Your task to perform on an android device: uninstall "Cash App" Image 0: 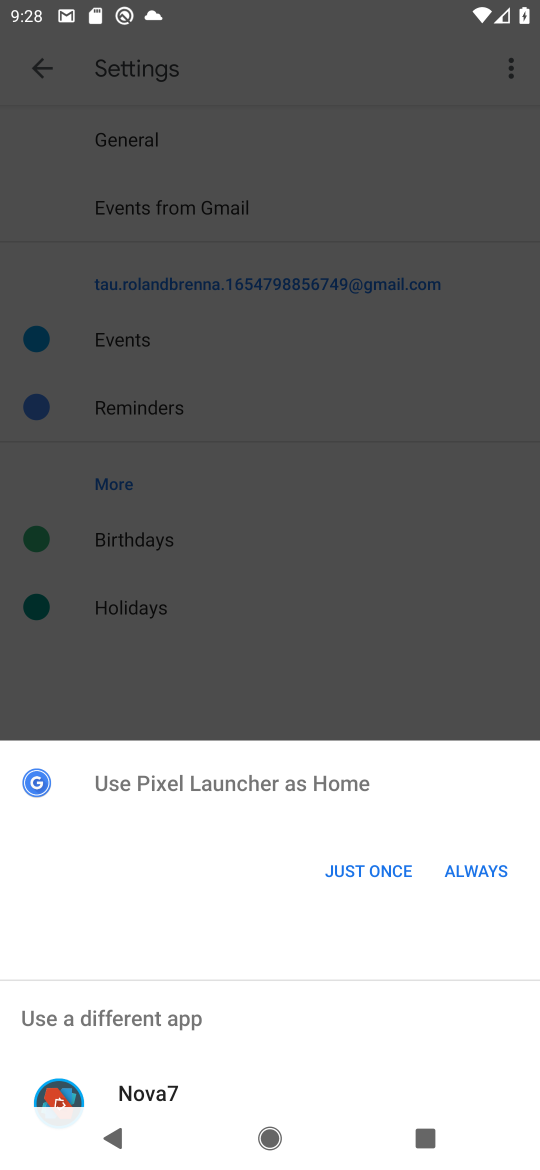
Step 0: press home button
Your task to perform on an android device: uninstall "Cash App" Image 1: 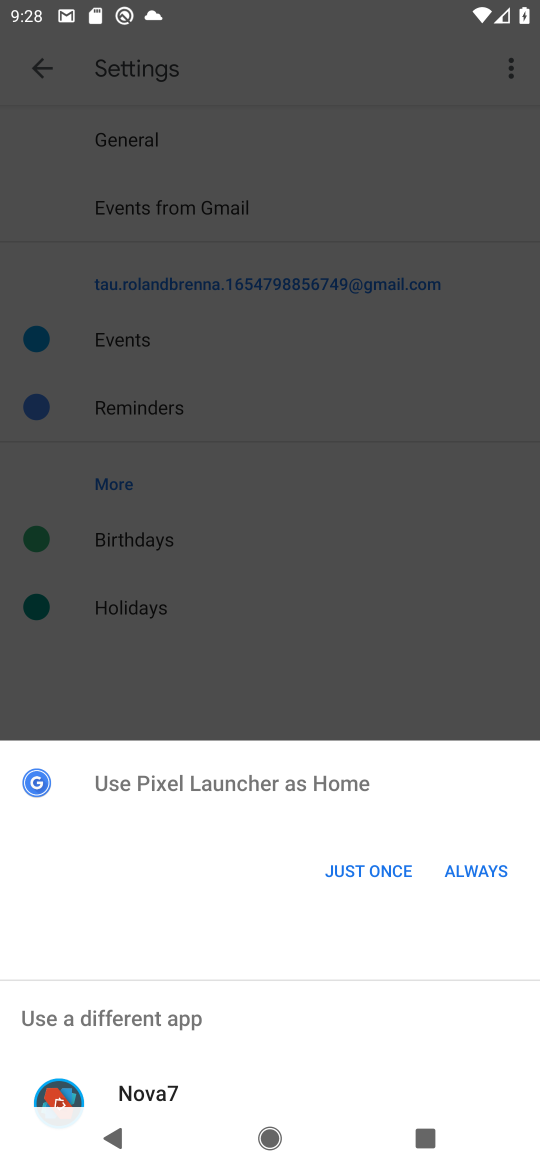
Step 1: press home button
Your task to perform on an android device: uninstall "Cash App" Image 2: 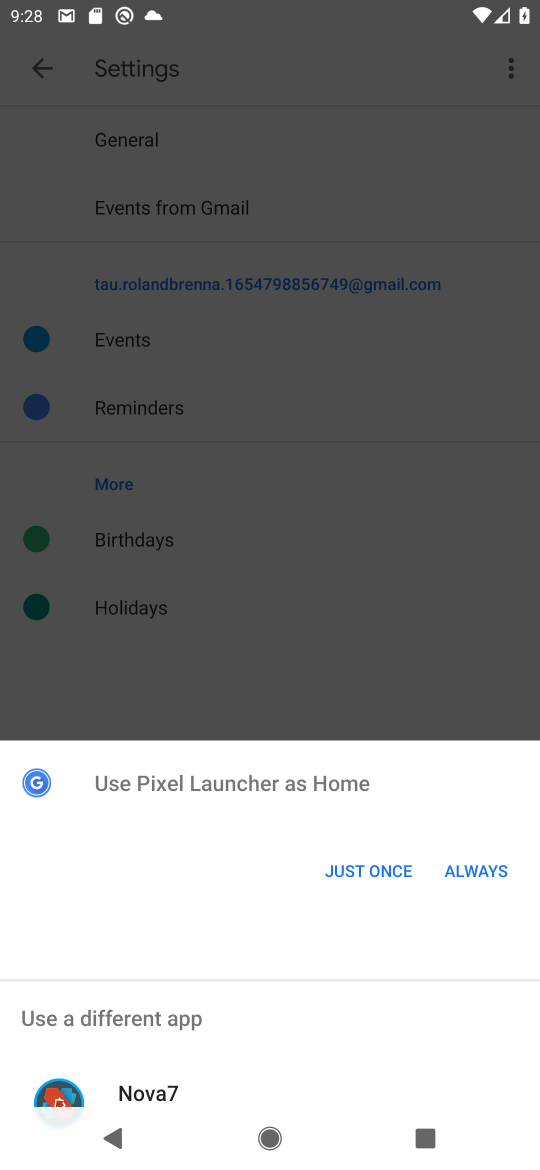
Step 2: press home button
Your task to perform on an android device: uninstall "Cash App" Image 3: 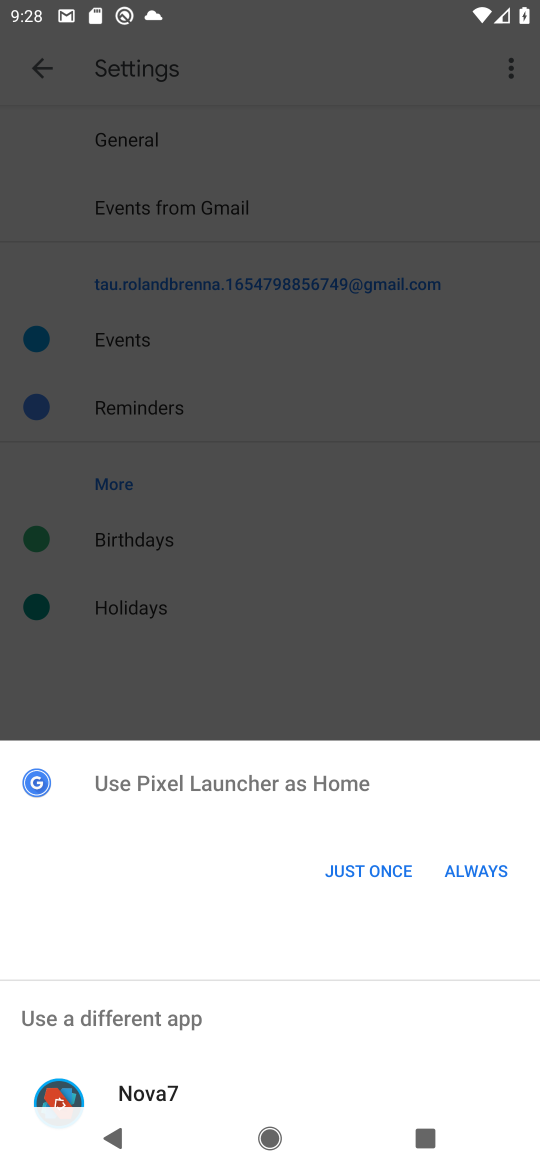
Step 3: press home button
Your task to perform on an android device: uninstall "Cash App" Image 4: 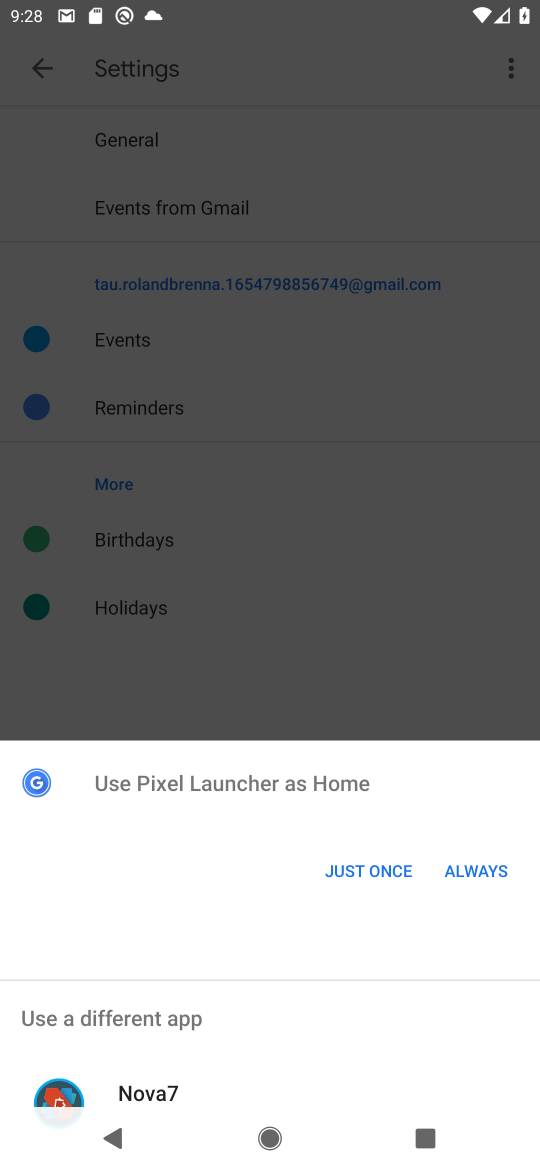
Step 4: click (380, 865)
Your task to perform on an android device: uninstall "Cash App" Image 5: 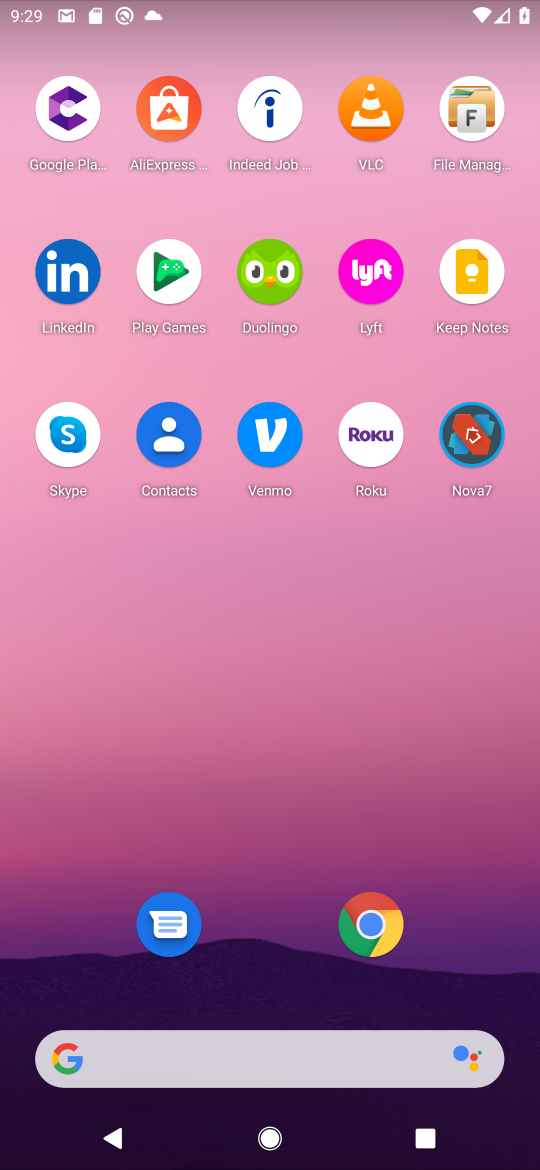
Step 5: press home button
Your task to perform on an android device: uninstall "Cash App" Image 6: 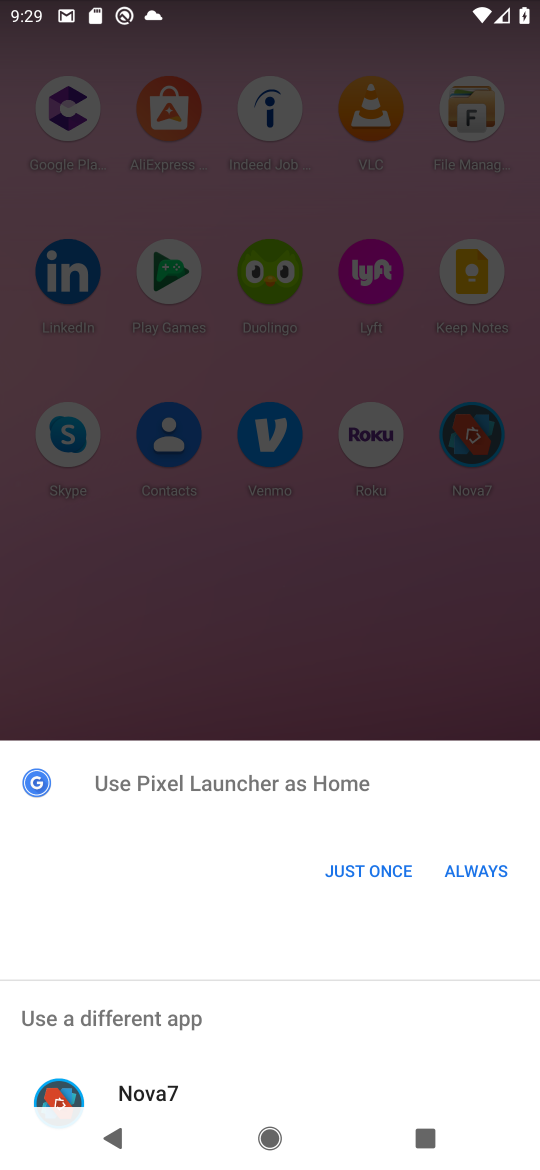
Step 6: press home button
Your task to perform on an android device: uninstall "Cash App" Image 7: 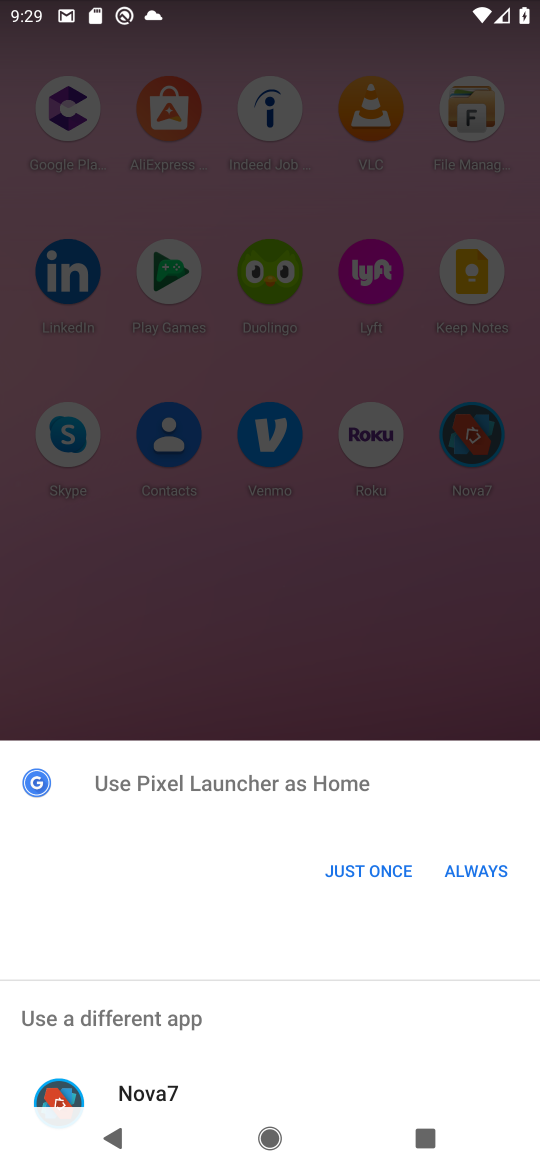
Step 7: press home button
Your task to perform on an android device: uninstall "Cash App" Image 8: 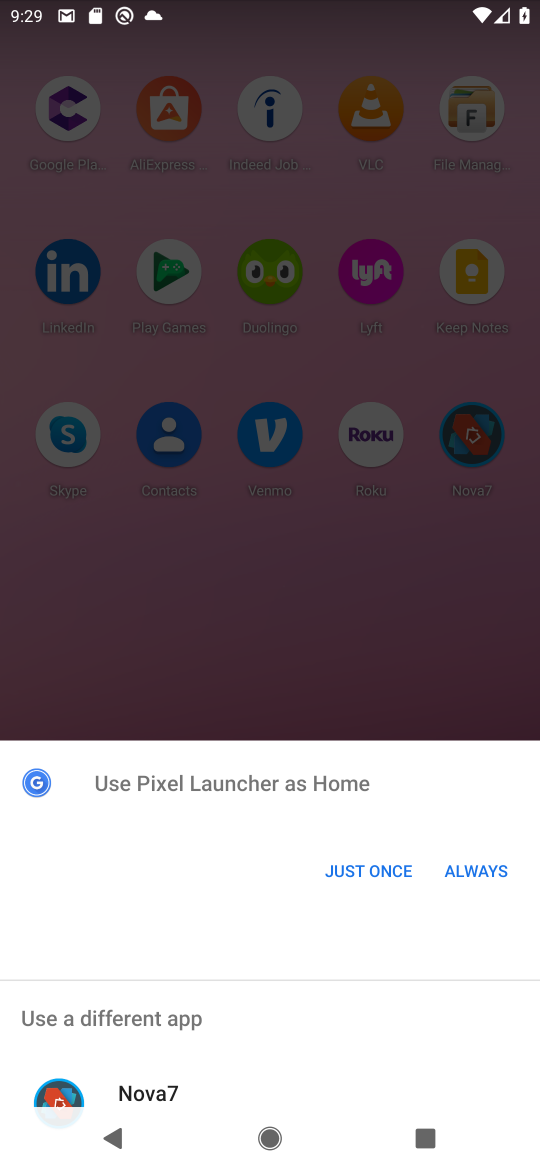
Step 8: drag from (363, 1048) to (451, 605)
Your task to perform on an android device: uninstall "Cash App" Image 9: 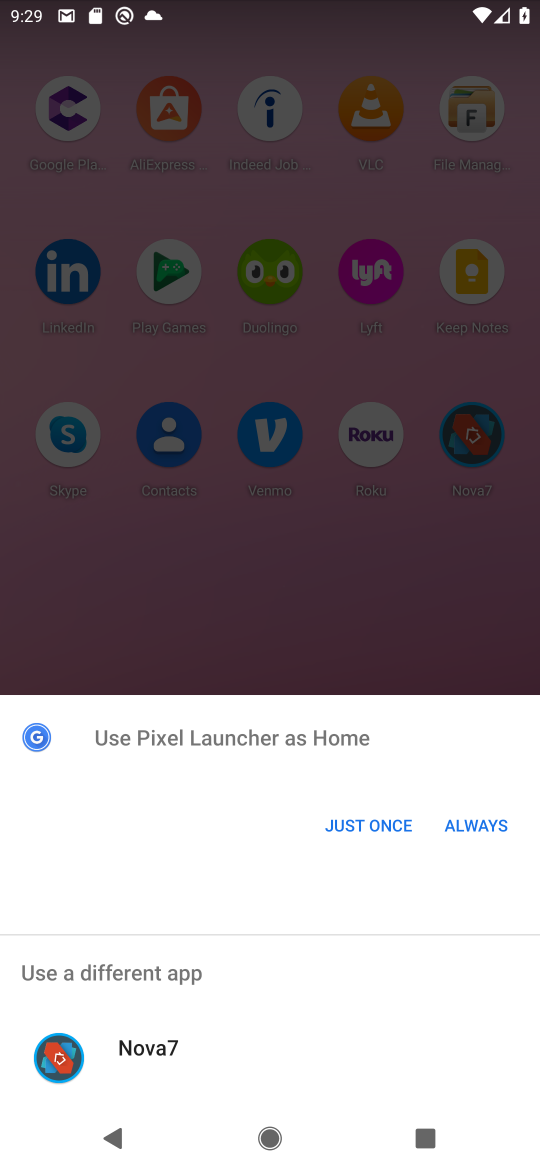
Step 9: click (343, 826)
Your task to perform on an android device: uninstall "Cash App" Image 10: 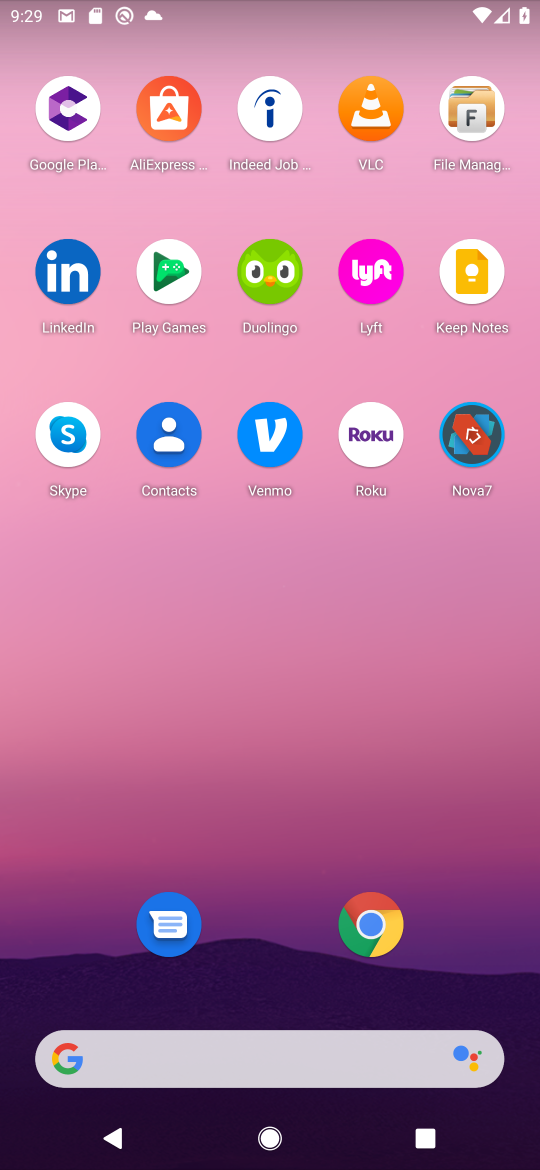
Step 10: drag from (218, 1008) to (362, 327)
Your task to perform on an android device: uninstall "Cash App" Image 11: 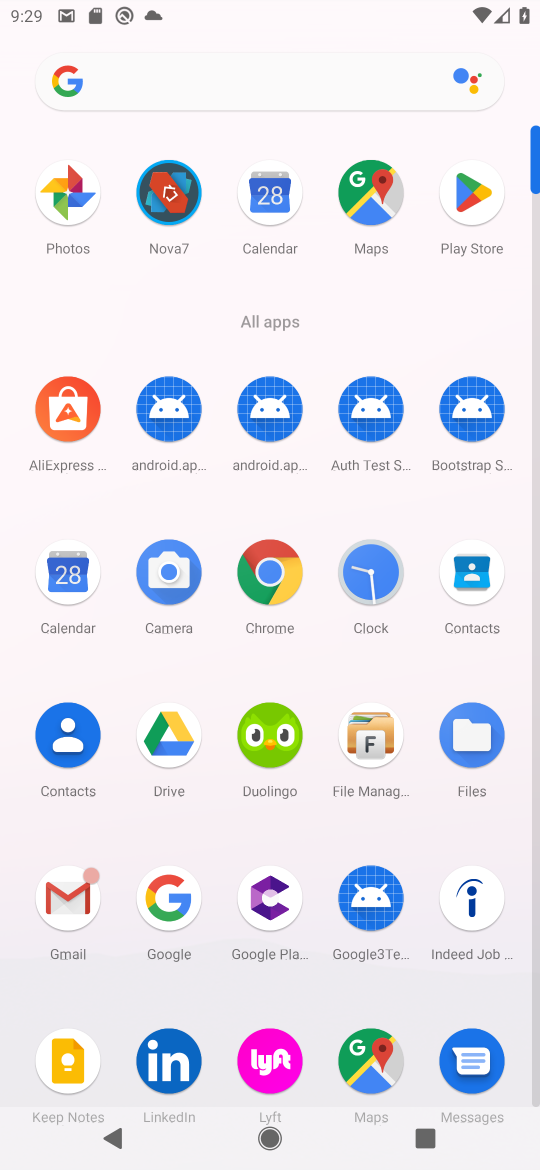
Step 11: click (467, 184)
Your task to perform on an android device: uninstall "Cash App" Image 12: 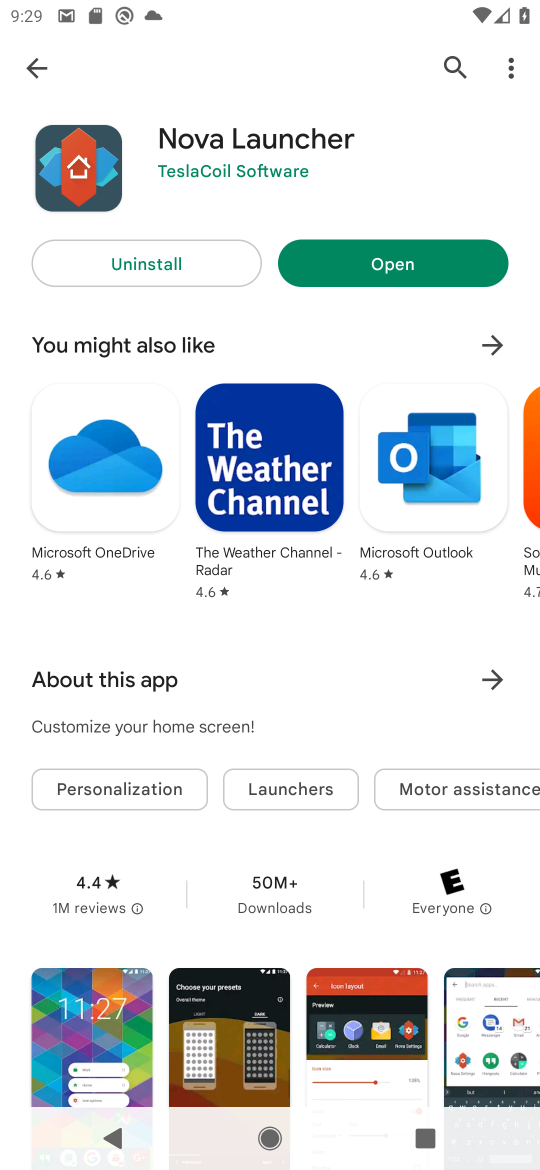
Step 12: click (464, 66)
Your task to perform on an android device: uninstall "Cash App" Image 13: 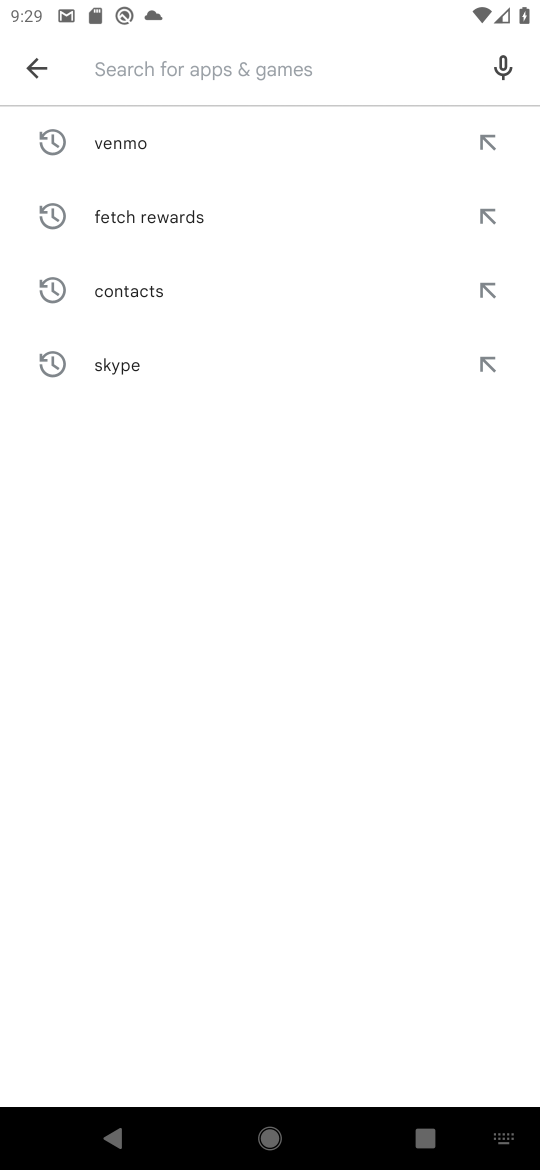
Step 13: type "Cash App"
Your task to perform on an android device: uninstall "Cash App" Image 14: 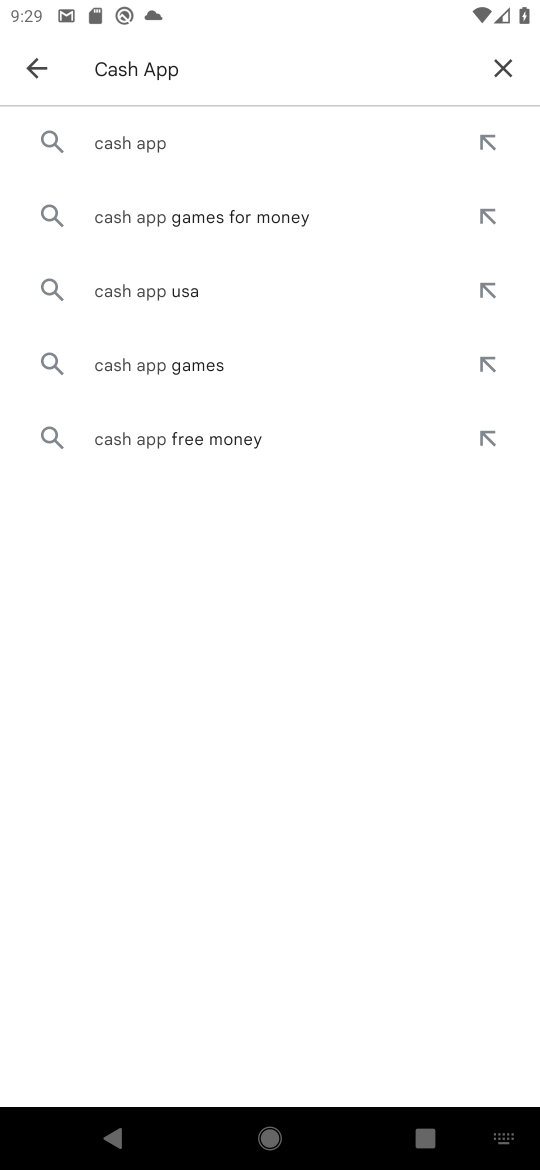
Step 14: click (139, 131)
Your task to perform on an android device: uninstall "Cash App" Image 15: 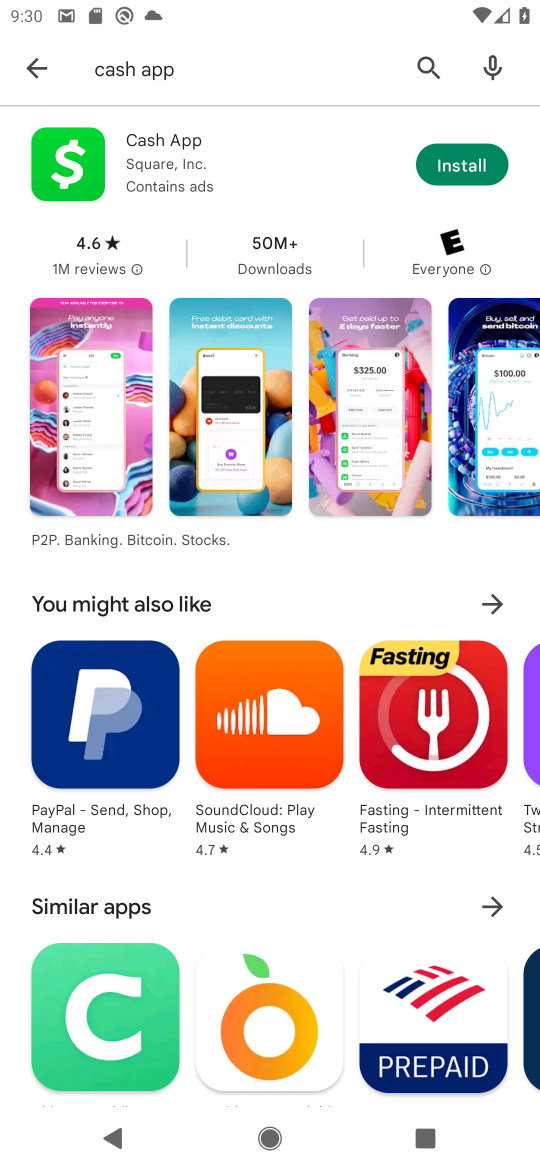
Step 15: task complete